Your task to perform on an android device: Go to calendar. Show me events next week Image 0: 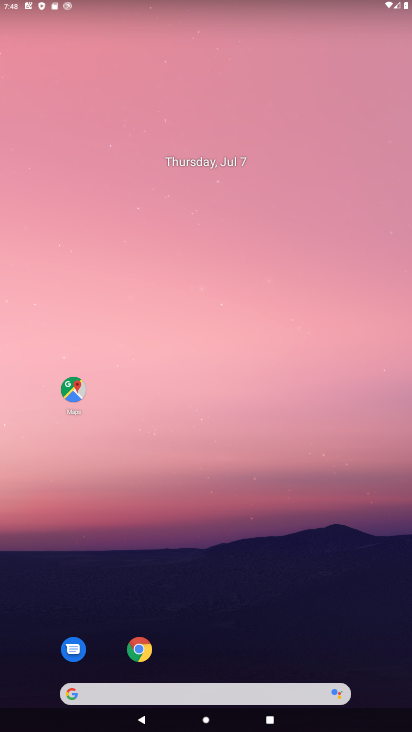
Step 0: drag from (162, 0) to (395, 98)
Your task to perform on an android device: Go to calendar. Show me events next week Image 1: 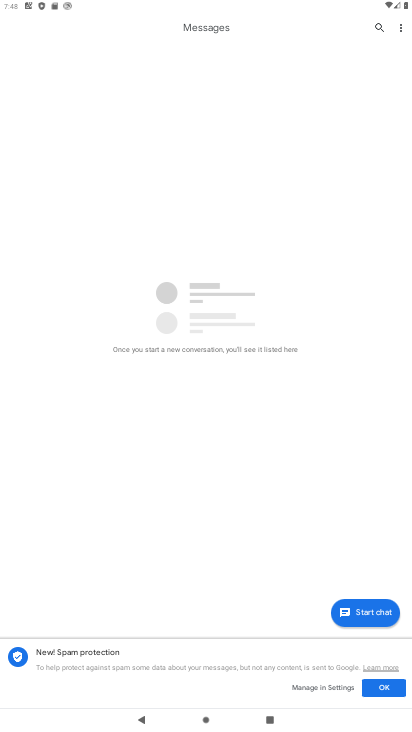
Step 1: press back button
Your task to perform on an android device: Go to calendar. Show me events next week Image 2: 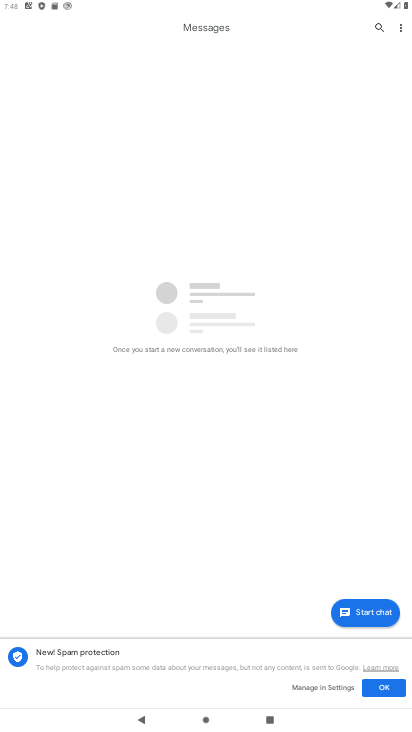
Step 2: press back button
Your task to perform on an android device: Go to calendar. Show me events next week Image 3: 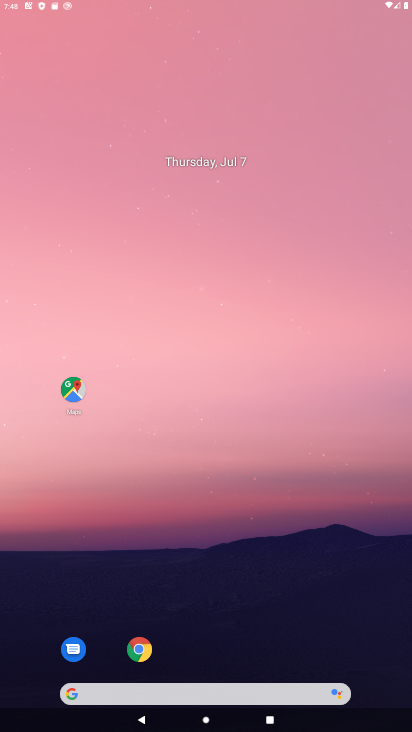
Step 3: press back button
Your task to perform on an android device: Go to calendar. Show me events next week Image 4: 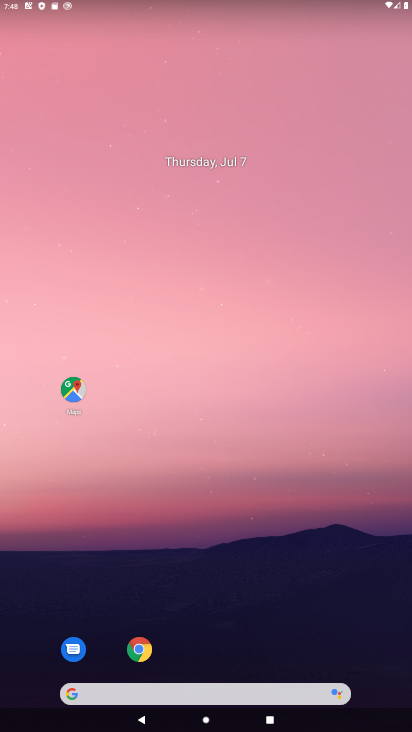
Step 4: press back button
Your task to perform on an android device: Go to calendar. Show me events next week Image 5: 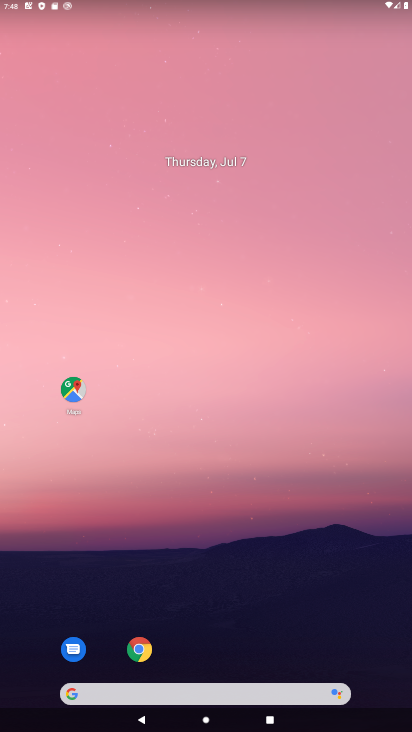
Step 5: press back button
Your task to perform on an android device: Go to calendar. Show me events next week Image 6: 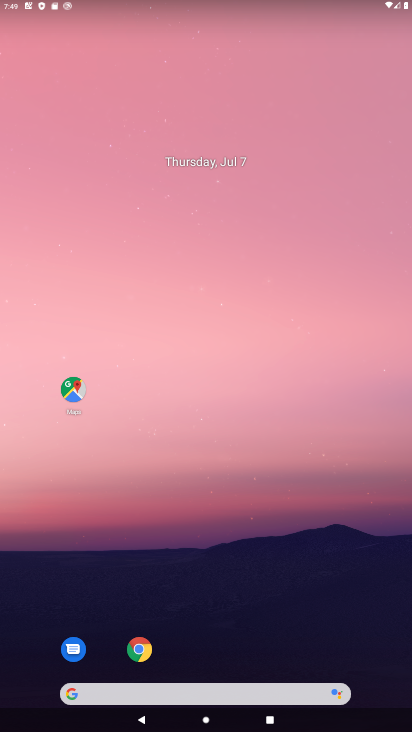
Step 6: drag from (256, 677) to (249, 132)
Your task to perform on an android device: Go to calendar. Show me events next week Image 7: 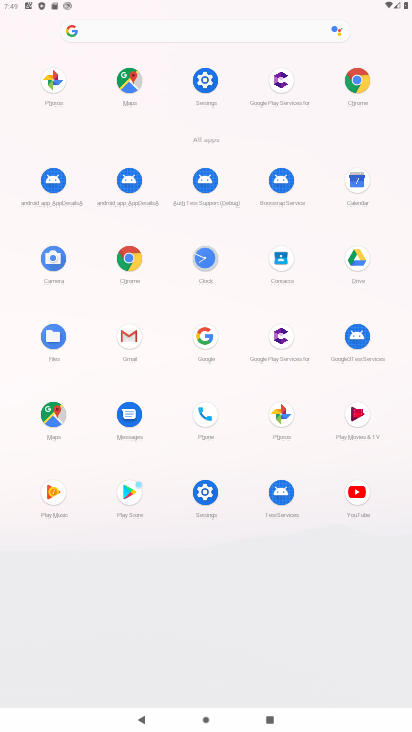
Step 7: click (353, 175)
Your task to perform on an android device: Go to calendar. Show me events next week Image 8: 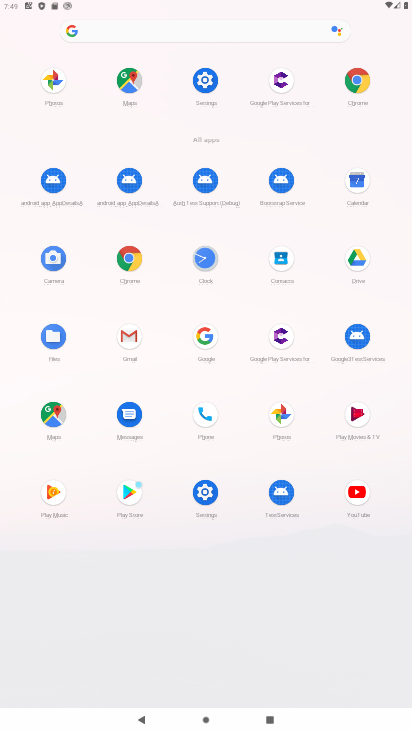
Step 8: click (358, 192)
Your task to perform on an android device: Go to calendar. Show me events next week Image 9: 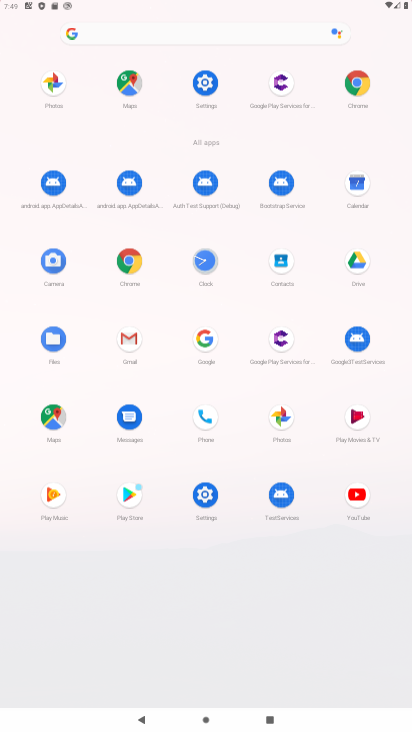
Step 9: click (360, 194)
Your task to perform on an android device: Go to calendar. Show me events next week Image 10: 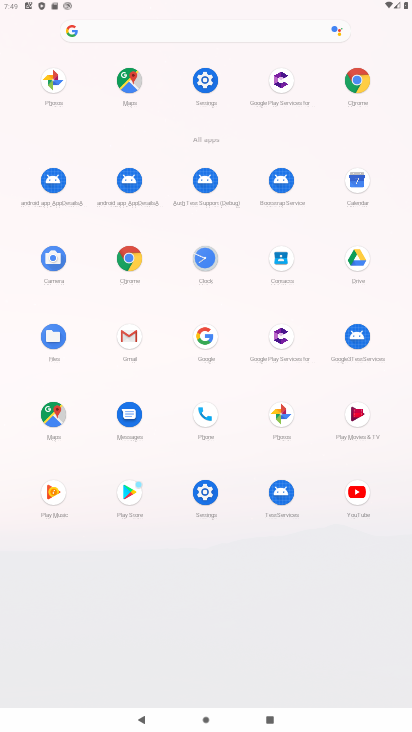
Step 10: click (359, 192)
Your task to perform on an android device: Go to calendar. Show me events next week Image 11: 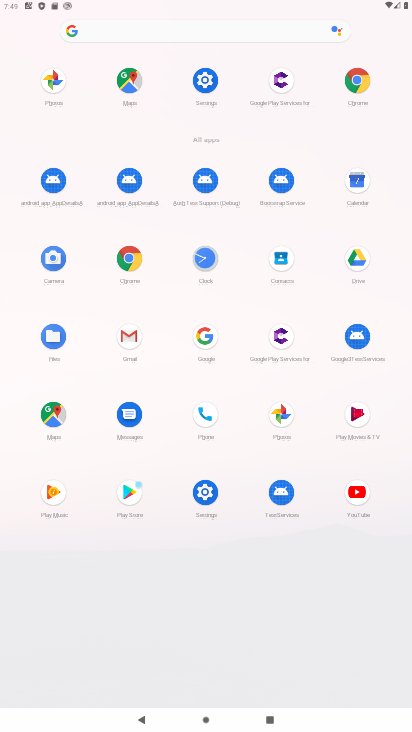
Step 11: click (359, 189)
Your task to perform on an android device: Go to calendar. Show me events next week Image 12: 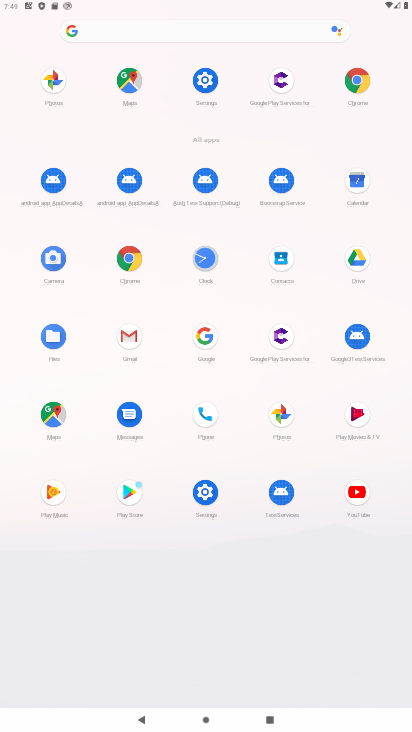
Step 12: click (359, 189)
Your task to perform on an android device: Go to calendar. Show me events next week Image 13: 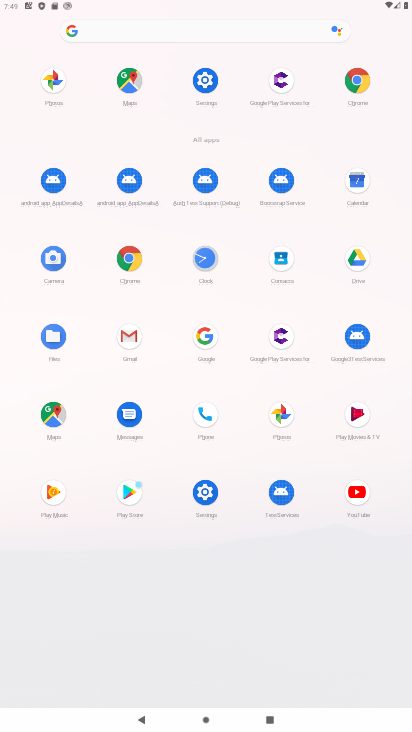
Step 13: click (359, 192)
Your task to perform on an android device: Go to calendar. Show me events next week Image 14: 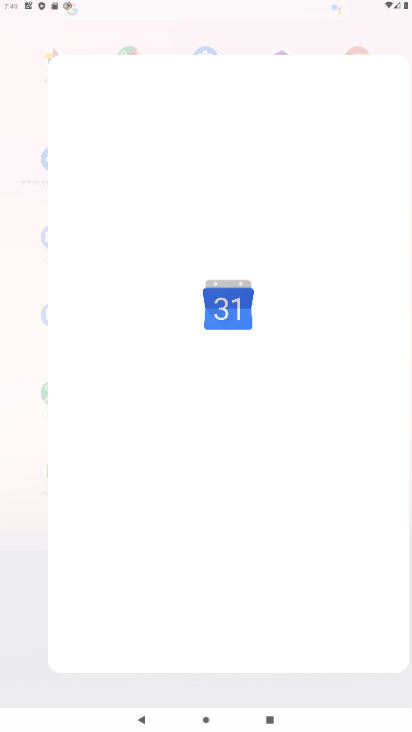
Step 14: click (357, 180)
Your task to perform on an android device: Go to calendar. Show me events next week Image 15: 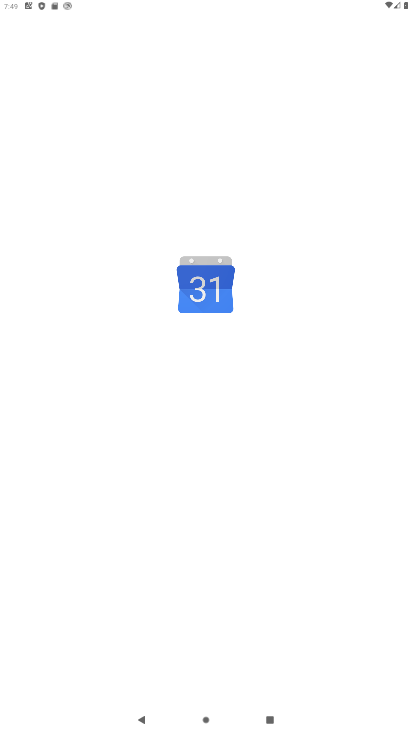
Step 15: click (355, 183)
Your task to perform on an android device: Go to calendar. Show me events next week Image 16: 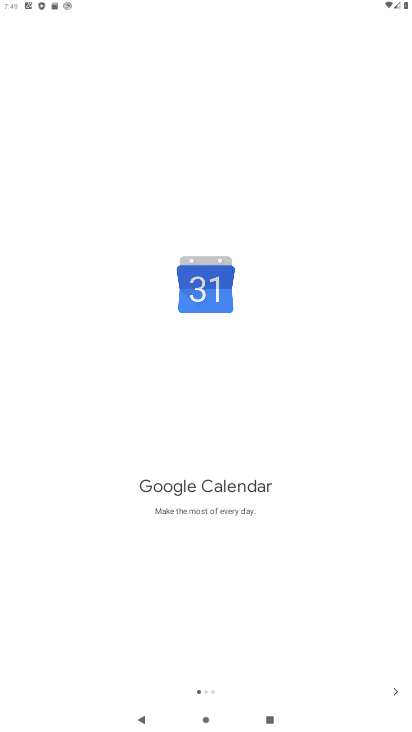
Step 16: click (396, 682)
Your task to perform on an android device: Go to calendar. Show me events next week Image 17: 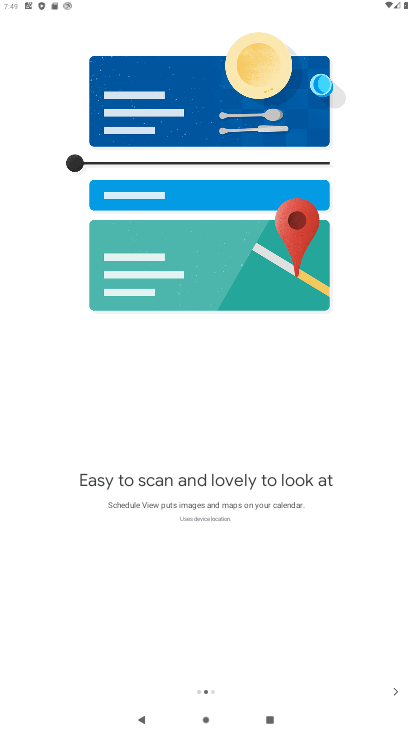
Step 17: click (396, 685)
Your task to perform on an android device: Go to calendar. Show me events next week Image 18: 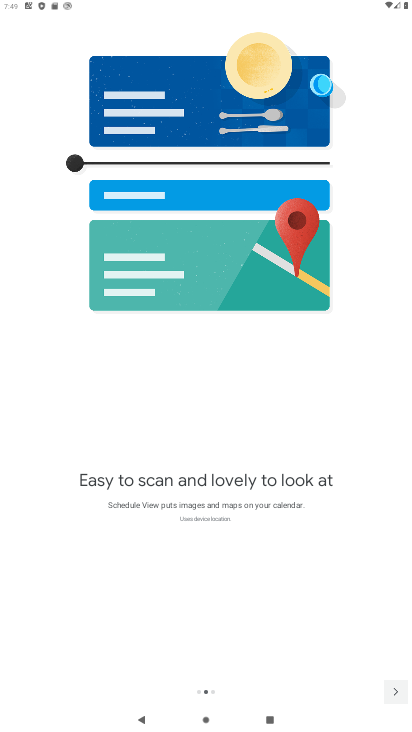
Step 18: click (396, 695)
Your task to perform on an android device: Go to calendar. Show me events next week Image 19: 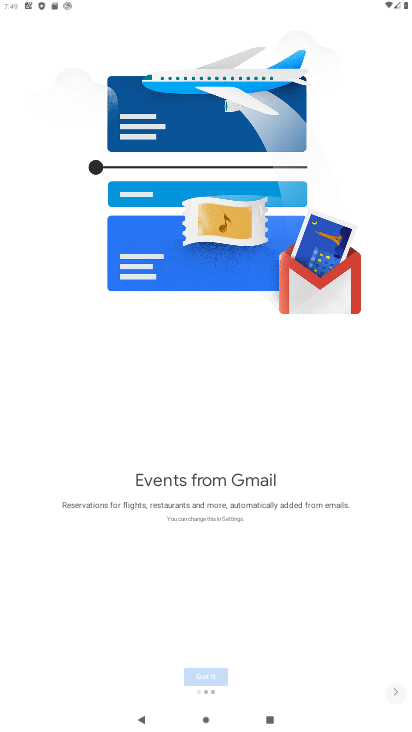
Step 19: click (396, 695)
Your task to perform on an android device: Go to calendar. Show me events next week Image 20: 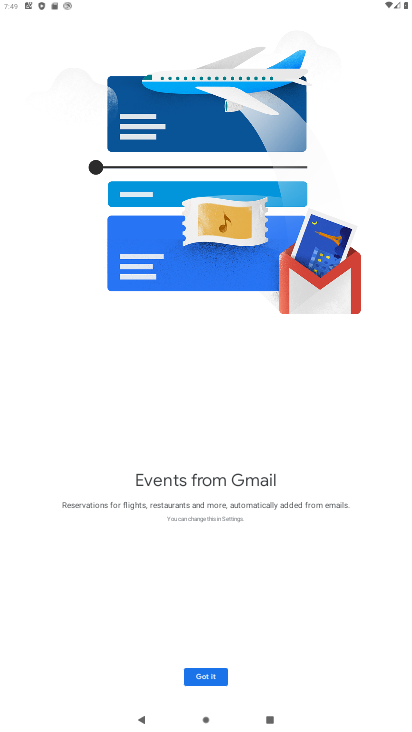
Step 20: click (217, 678)
Your task to perform on an android device: Go to calendar. Show me events next week Image 21: 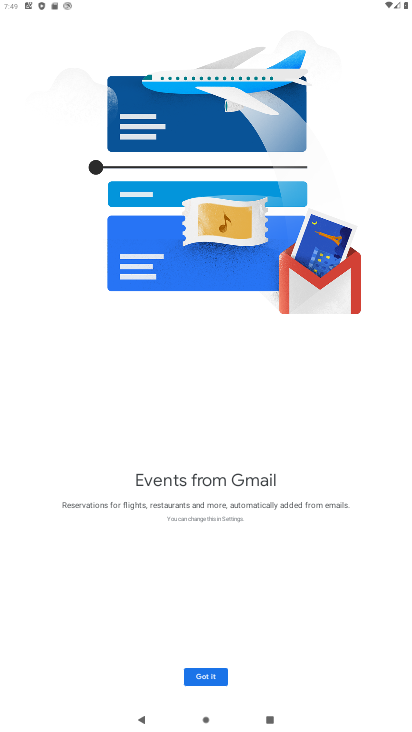
Step 21: click (217, 678)
Your task to perform on an android device: Go to calendar. Show me events next week Image 22: 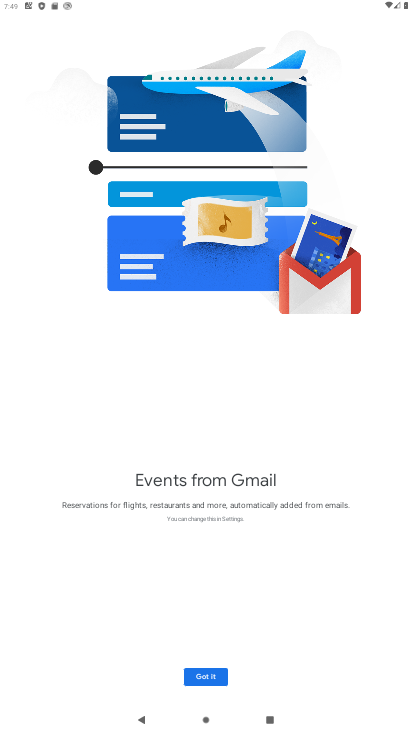
Step 22: click (217, 678)
Your task to perform on an android device: Go to calendar. Show me events next week Image 23: 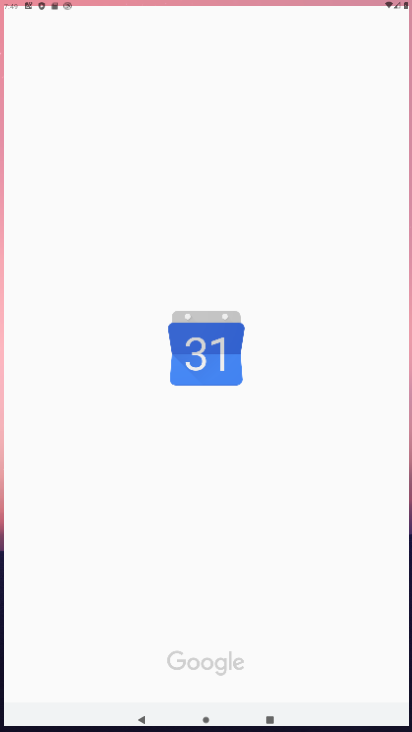
Step 23: click (218, 677)
Your task to perform on an android device: Go to calendar. Show me events next week Image 24: 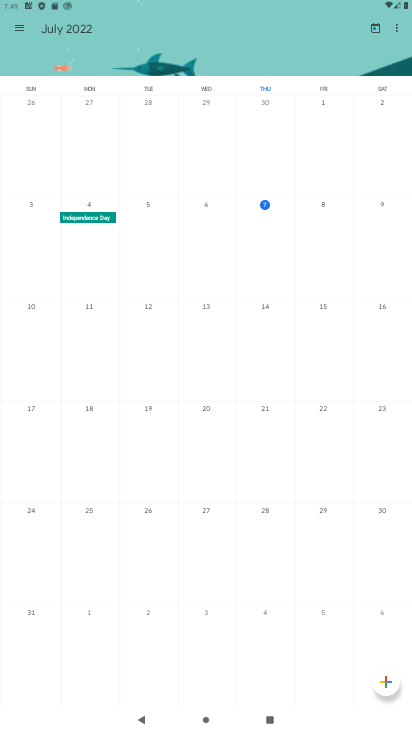
Step 24: click (324, 307)
Your task to perform on an android device: Go to calendar. Show me events next week Image 25: 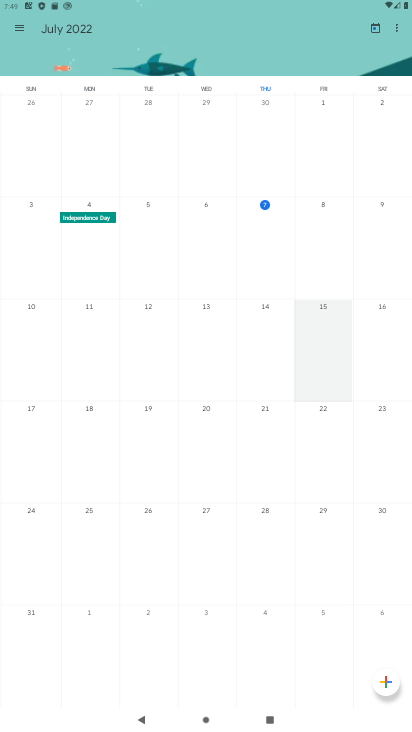
Step 25: click (324, 307)
Your task to perform on an android device: Go to calendar. Show me events next week Image 26: 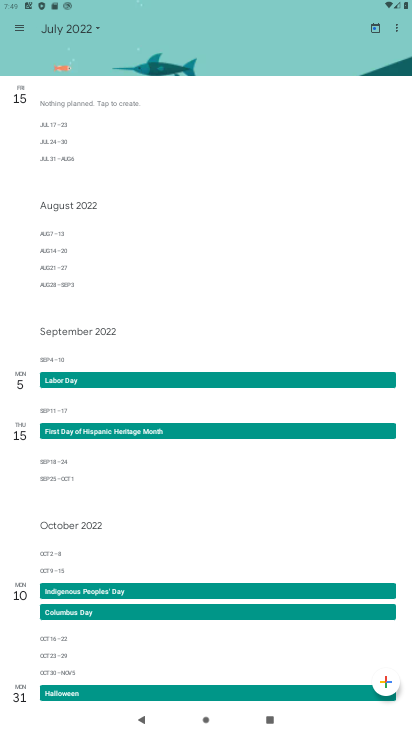
Step 26: task complete